Your task to perform on an android device: change timer sound Image 0: 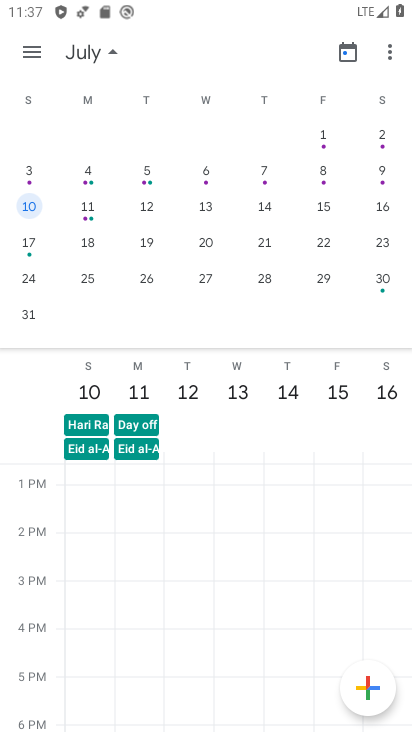
Step 0: press home button
Your task to perform on an android device: change timer sound Image 1: 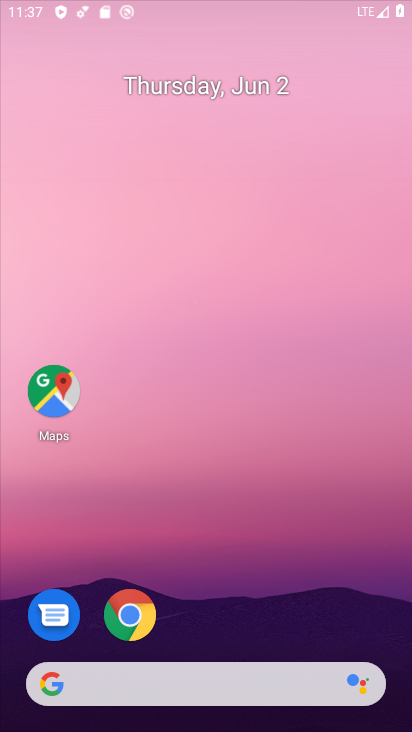
Step 1: drag from (328, 609) to (255, 24)
Your task to perform on an android device: change timer sound Image 2: 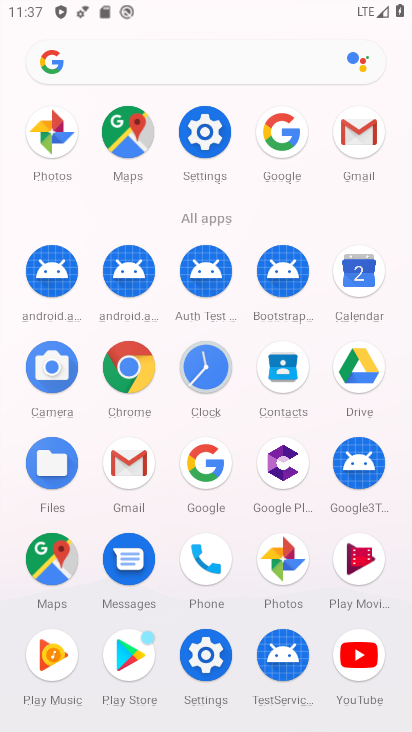
Step 2: click (213, 365)
Your task to perform on an android device: change timer sound Image 3: 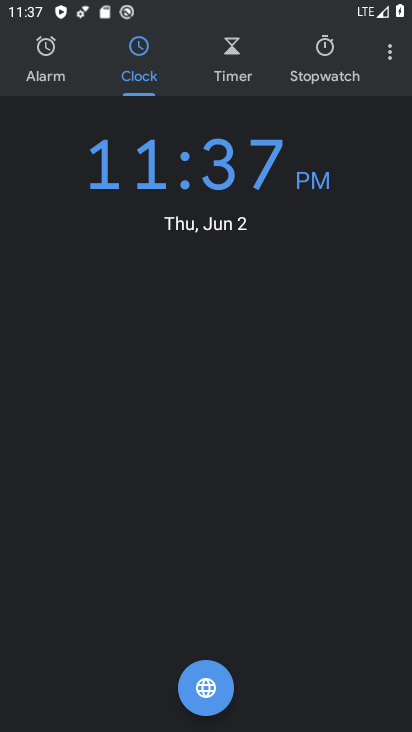
Step 3: click (380, 52)
Your task to perform on an android device: change timer sound Image 4: 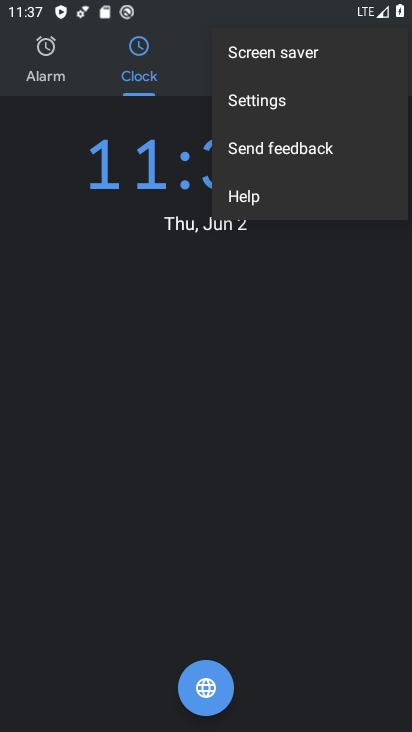
Step 4: click (273, 92)
Your task to perform on an android device: change timer sound Image 5: 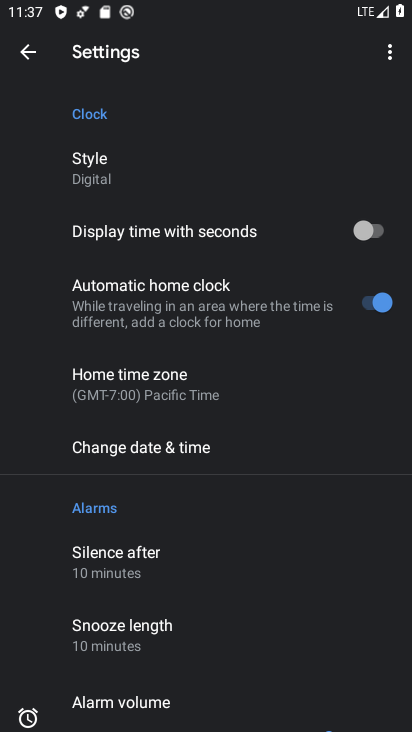
Step 5: drag from (270, 622) to (253, 166)
Your task to perform on an android device: change timer sound Image 6: 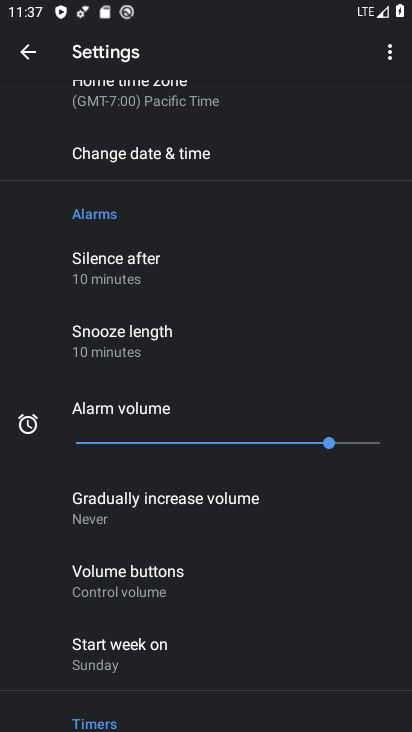
Step 6: drag from (192, 633) to (195, 300)
Your task to perform on an android device: change timer sound Image 7: 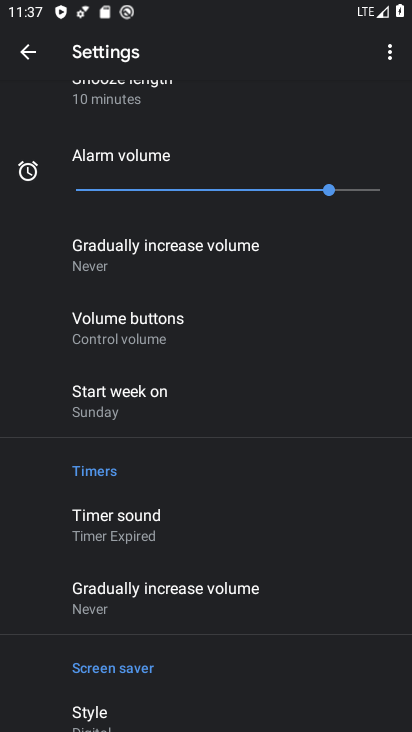
Step 7: click (161, 509)
Your task to perform on an android device: change timer sound Image 8: 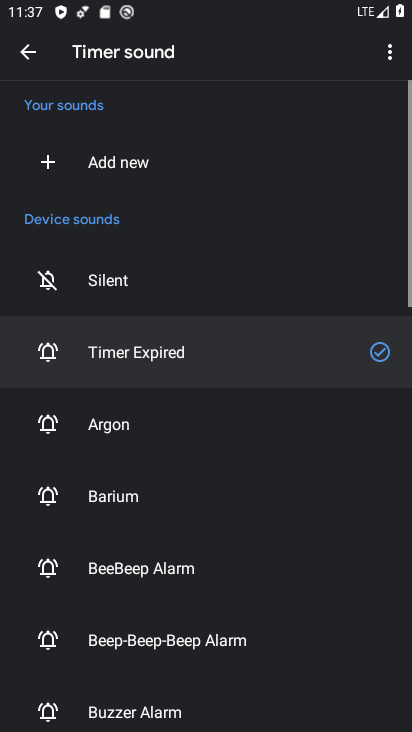
Step 8: click (248, 462)
Your task to perform on an android device: change timer sound Image 9: 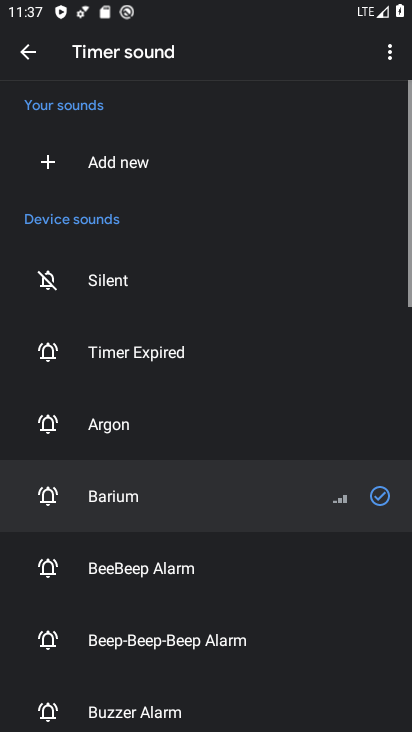
Step 9: task complete